Your task to perform on an android device: create a new album in the google photos Image 0: 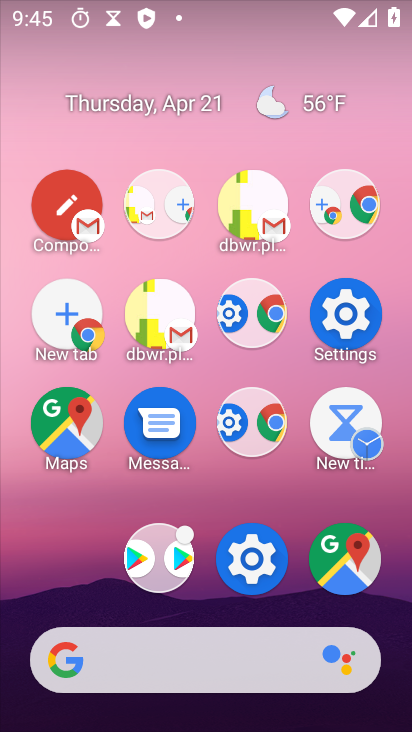
Step 0: drag from (194, 371) to (110, 39)
Your task to perform on an android device: create a new album in the google photos Image 1: 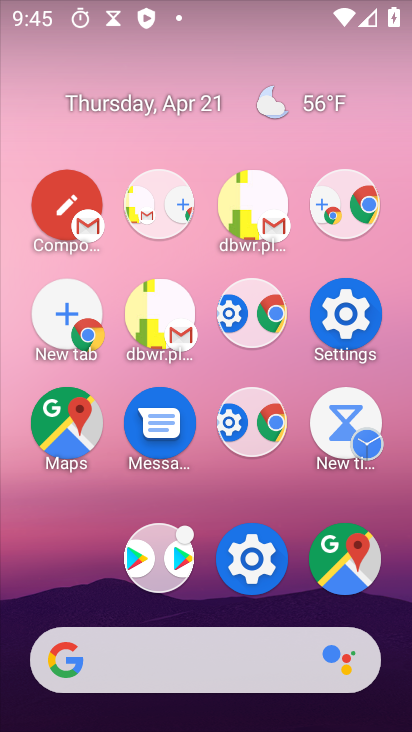
Step 1: drag from (308, 572) to (104, 2)
Your task to perform on an android device: create a new album in the google photos Image 2: 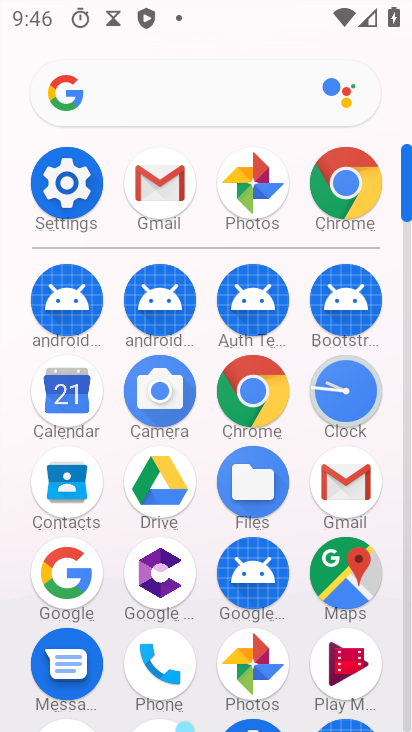
Step 2: click (260, 660)
Your task to perform on an android device: create a new album in the google photos Image 3: 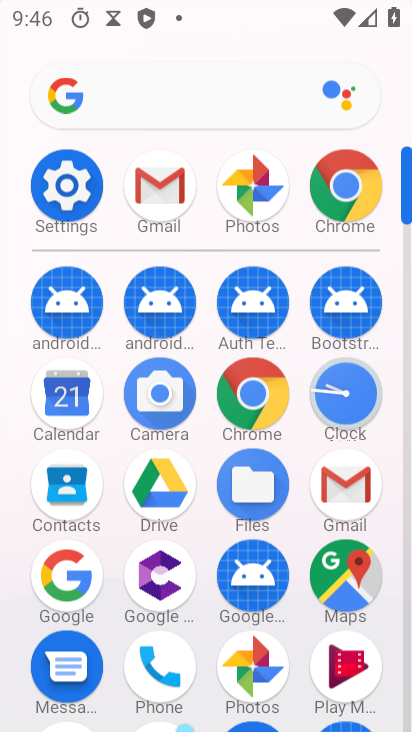
Step 3: click (241, 679)
Your task to perform on an android device: create a new album in the google photos Image 4: 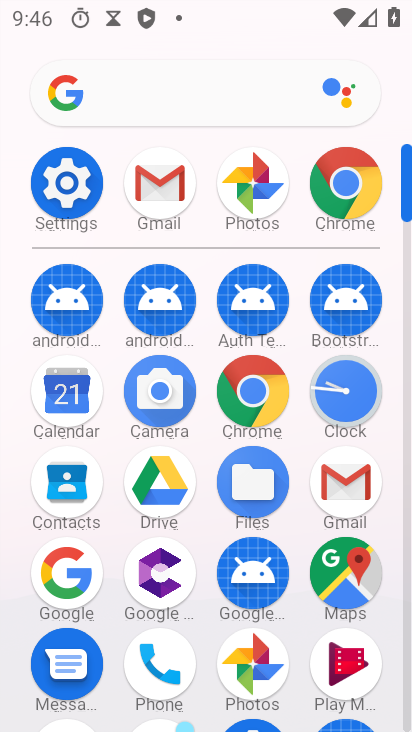
Step 4: click (243, 676)
Your task to perform on an android device: create a new album in the google photos Image 5: 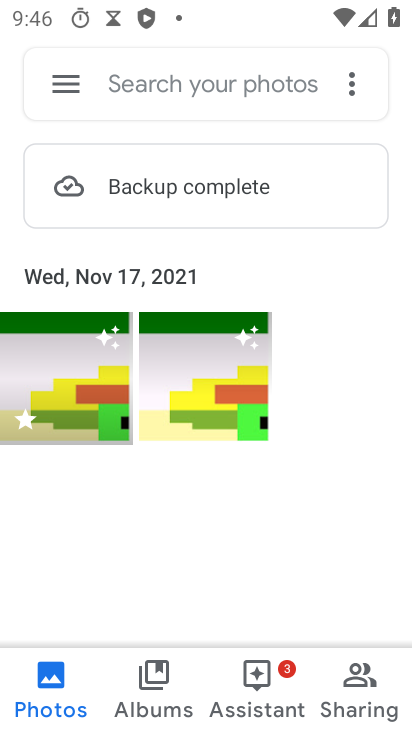
Step 5: click (153, 668)
Your task to perform on an android device: create a new album in the google photos Image 6: 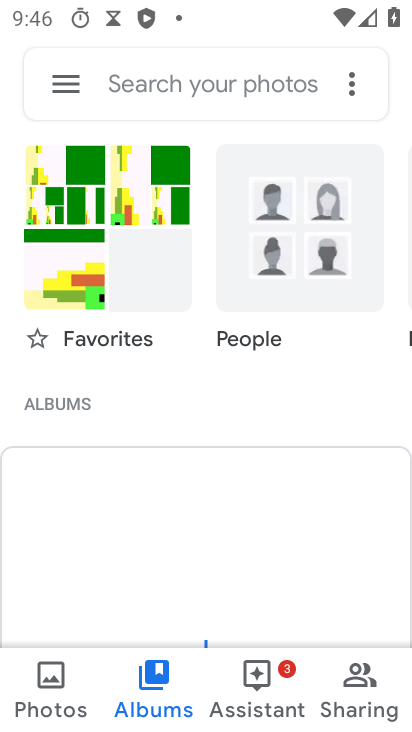
Step 6: drag from (210, 530) to (117, 121)
Your task to perform on an android device: create a new album in the google photos Image 7: 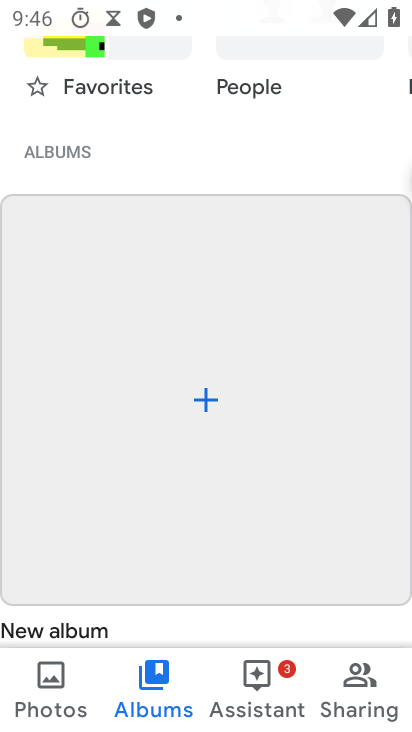
Step 7: drag from (215, 499) to (137, 134)
Your task to perform on an android device: create a new album in the google photos Image 8: 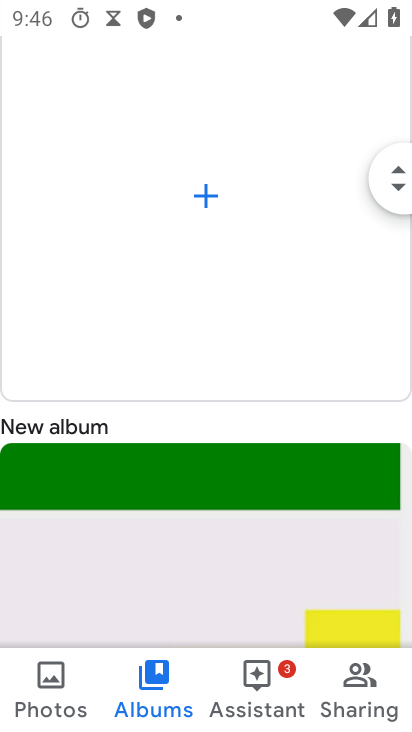
Step 8: click (198, 184)
Your task to perform on an android device: create a new album in the google photos Image 9: 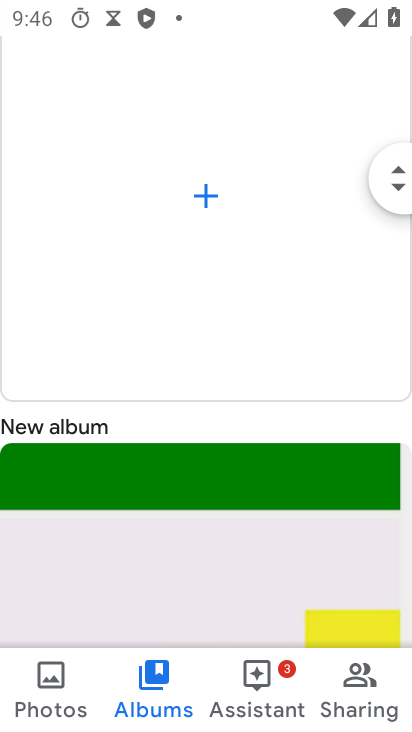
Step 9: click (207, 188)
Your task to perform on an android device: create a new album in the google photos Image 10: 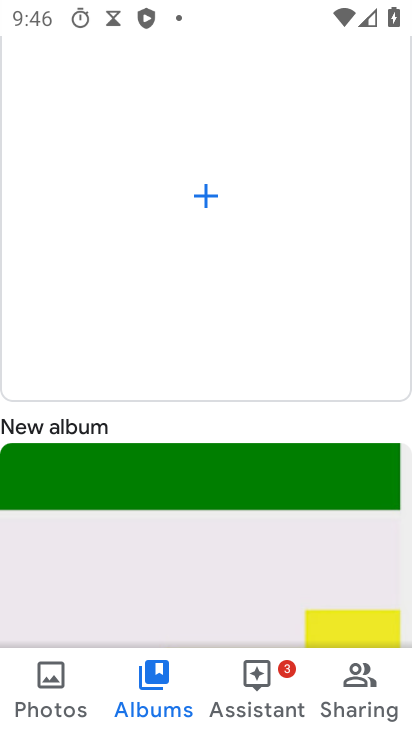
Step 10: click (198, 192)
Your task to perform on an android device: create a new album in the google photos Image 11: 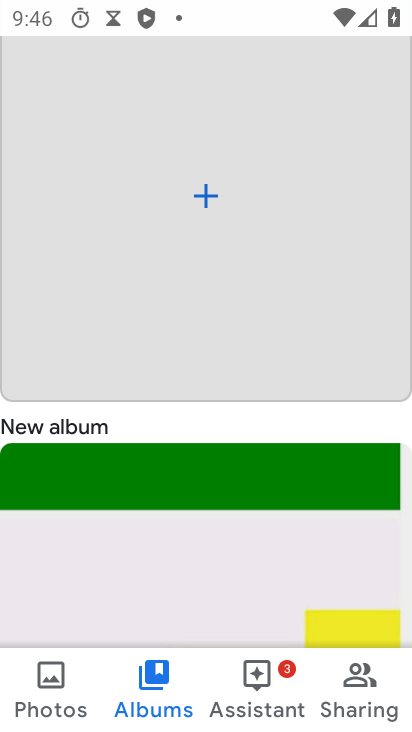
Step 11: click (199, 192)
Your task to perform on an android device: create a new album in the google photos Image 12: 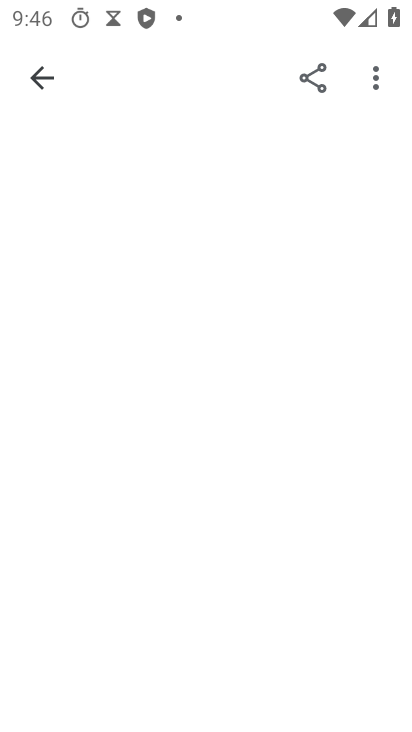
Step 12: click (199, 192)
Your task to perform on an android device: create a new album in the google photos Image 13: 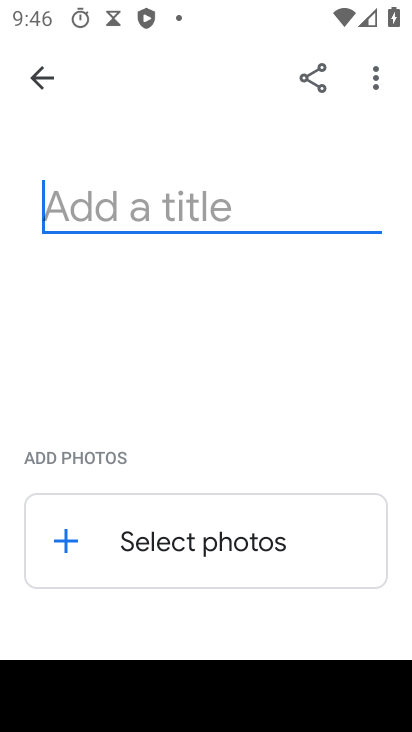
Step 13: click (49, 201)
Your task to perform on an android device: create a new album in the google photos Image 14: 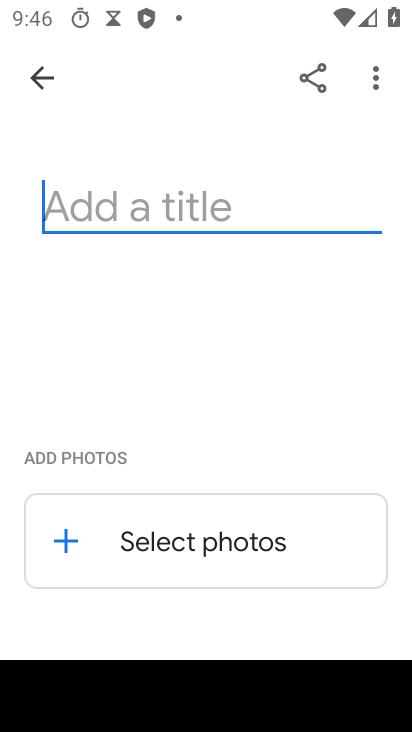
Step 14: click (60, 210)
Your task to perform on an android device: create a new album in the google photos Image 15: 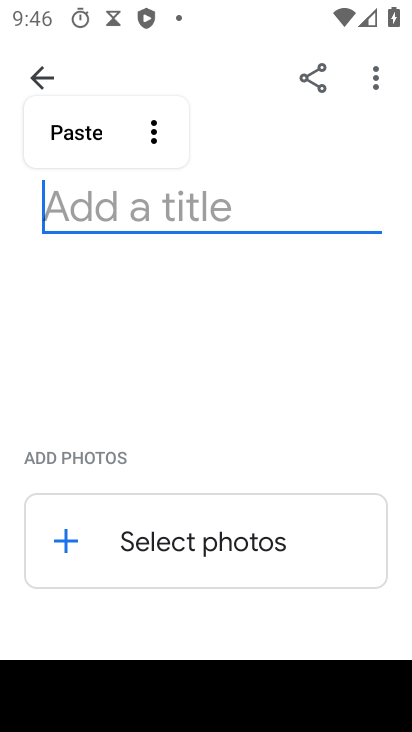
Step 15: type "yatri"
Your task to perform on an android device: create a new album in the google photos Image 16: 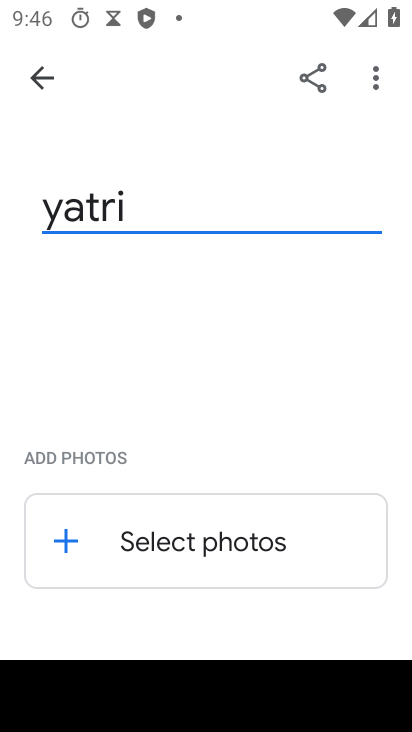
Step 16: click (166, 546)
Your task to perform on an android device: create a new album in the google photos Image 17: 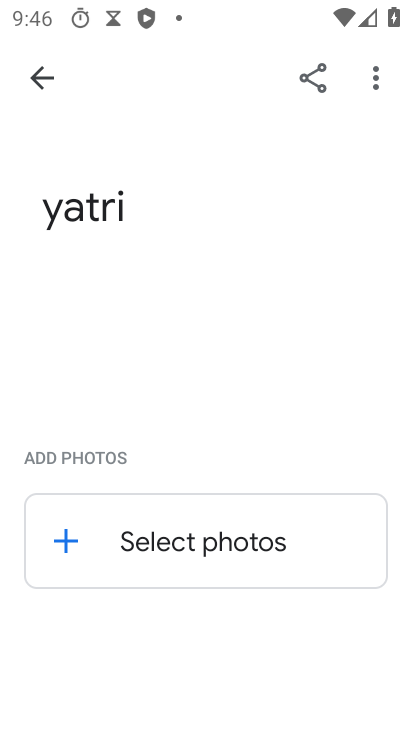
Step 17: click (139, 534)
Your task to perform on an android device: create a new album in the google photos Image 18: 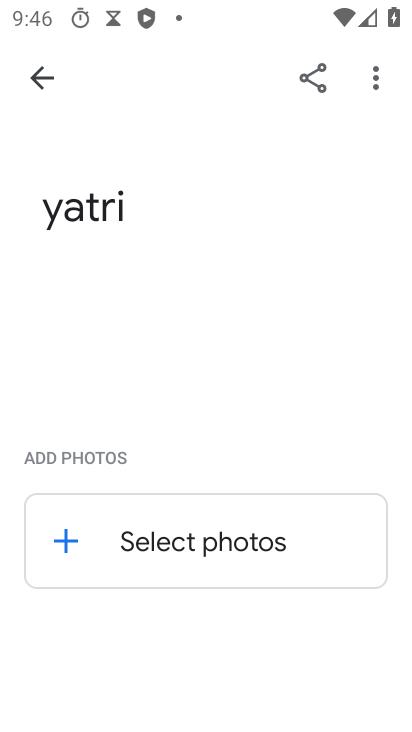
Step 18: click (139, 534)
Your task to perform on an android device: create a new album in the google photos Image 19: 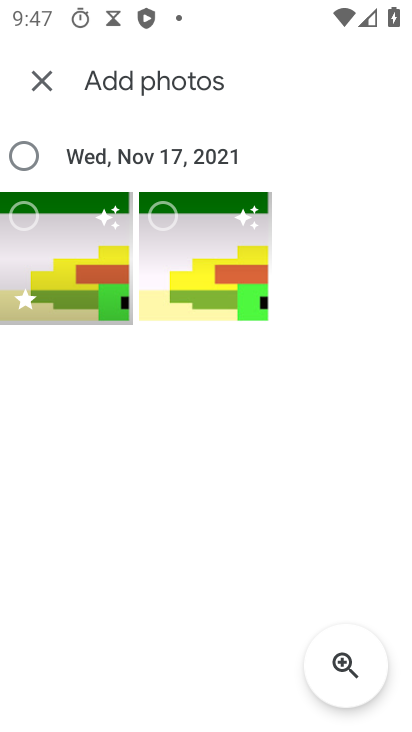
Step 19: click (28, 218)
Your task to perform on an android device: create a new album in the google photos Image 20: 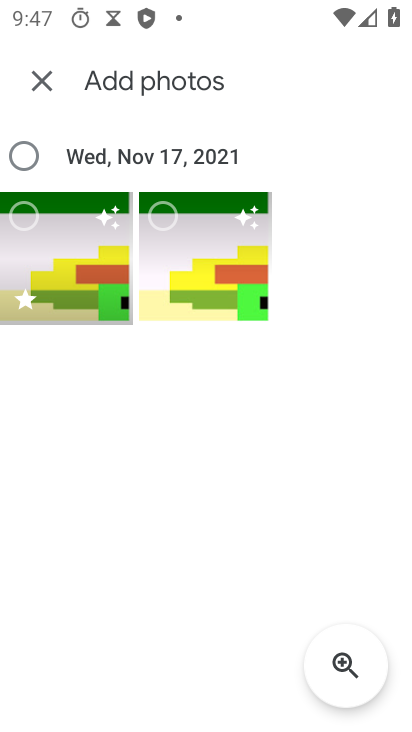
Step 20: click (28, 218)
Your task to perform on an android device: create a new album in the google photos Image 21: 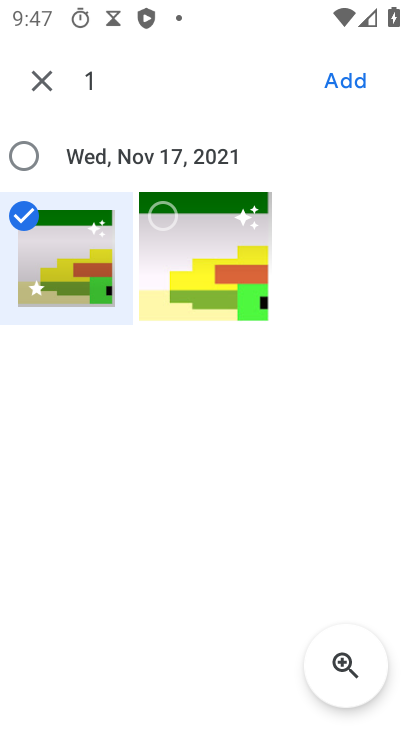
Step 21: click (28, 218)
Your task to perform on an android device: create a new album in the google photos Image 22: 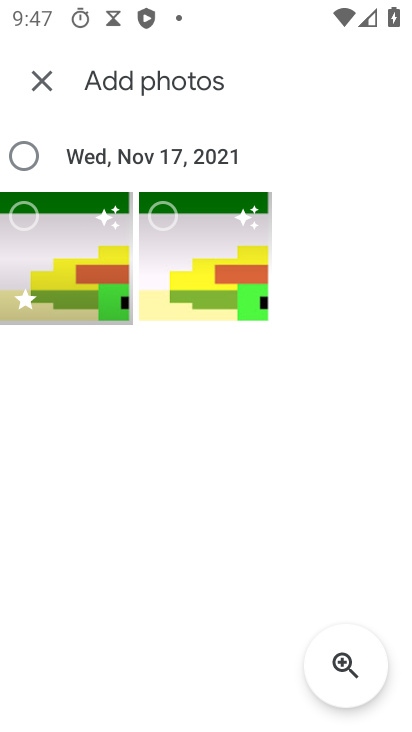
Step 22: click (28, 218)
Your task to perform on an android device: create a new album in the google photos Image 23: 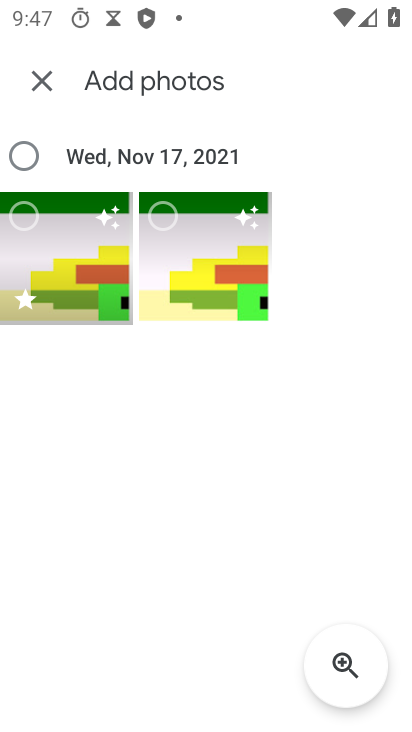
Step 23: click (163, 205)
Your task to perform on an android device: create a new album in the google photos Image 24: 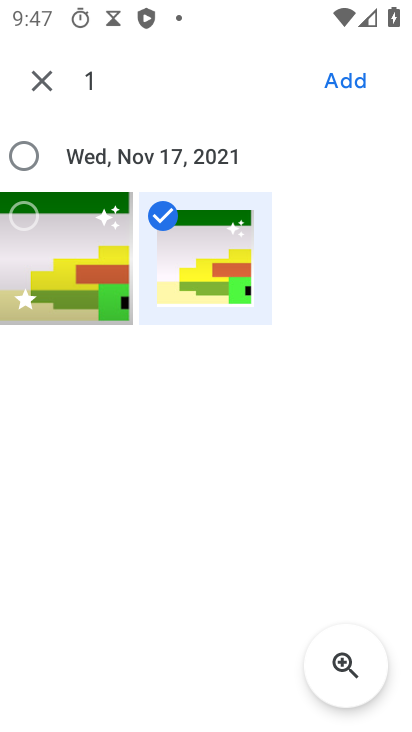
Step 24: click (16, 209)
Your task to perform on an android device: create a new album in the google photos Image 25: 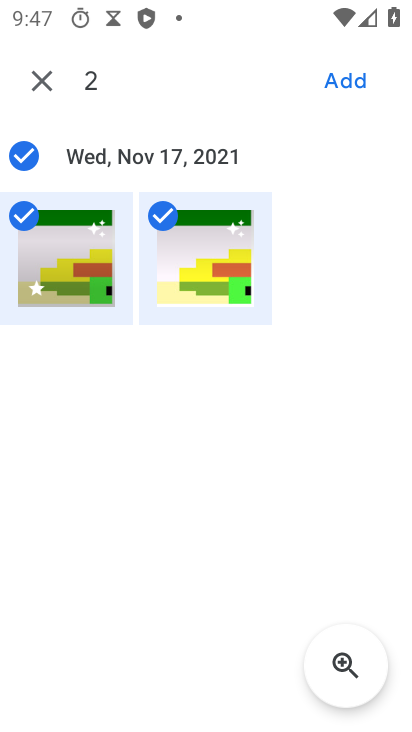
Step 25: click (354, 82)
Your task to perform on an android device: create a new album in the google photos Image 26: 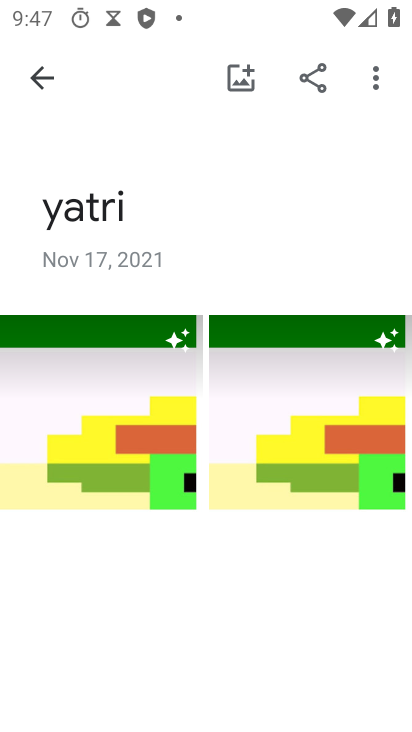
Step 26: task complete